Your task to perform on an android device: Open wifi settings Image 0: 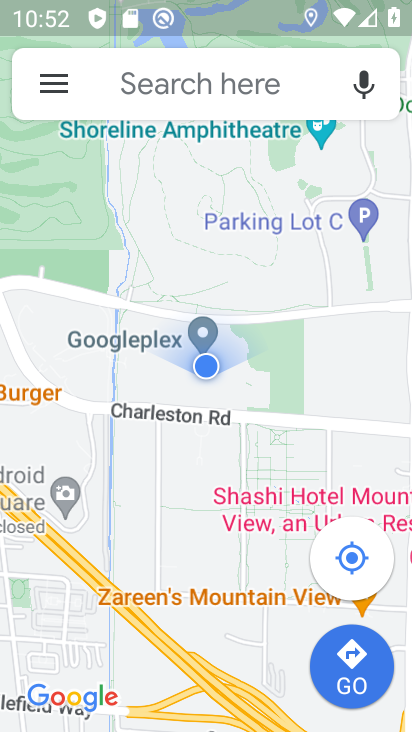
Step 0: press home button
Your task to perform on an android device: Open wifi settings Image 1: 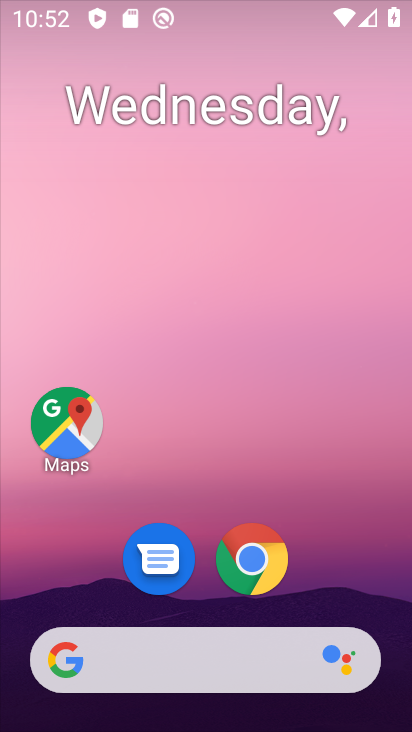
Step 1: drag from (118, 9) to (146, 446)
Your task to perform on an android device: Open wifi settings Image 2: 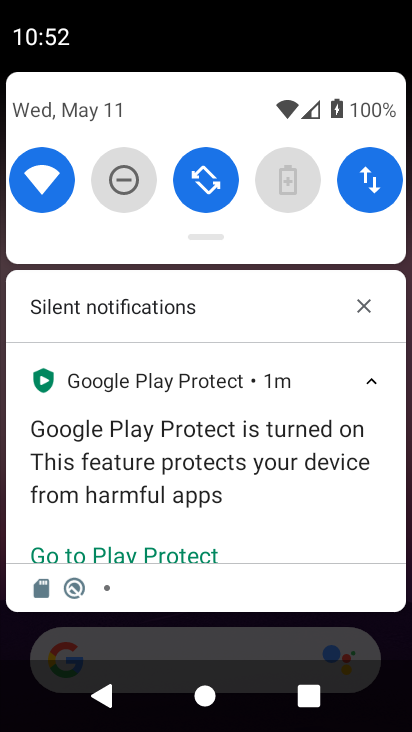
Step 2: click (42, 179)
Your task to perform on an android device: Open wifi settings Image 3: 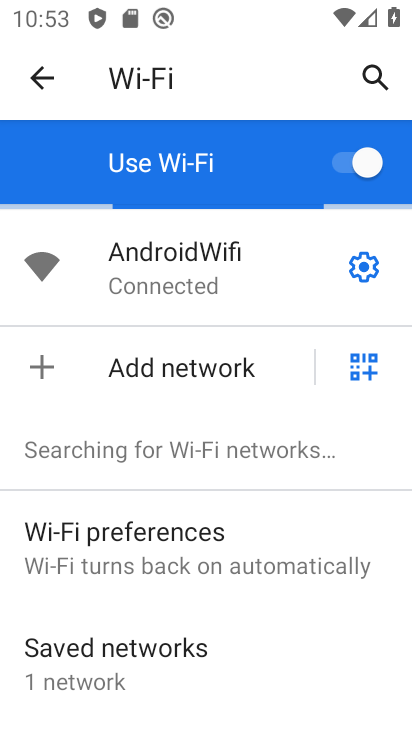
Step 3: task complete